Your task to perform on an android device: turn on javascript in the chrome app Image 0: 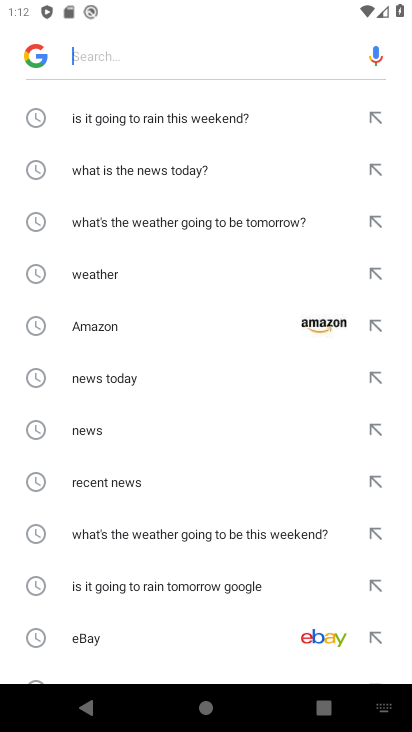
Step 0: press home button
Your task to perform on an android device: turn on javascript in the chrome app Image 1: 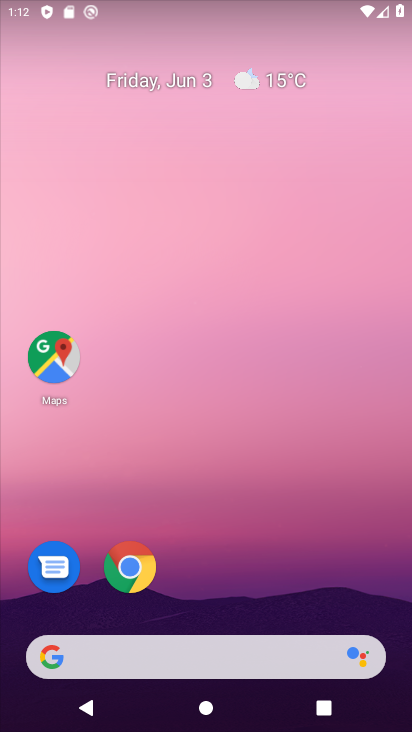
Step 1: click (124, 562)
Your task to perform on an android device: turn on javascript in the chrome app Image 2: 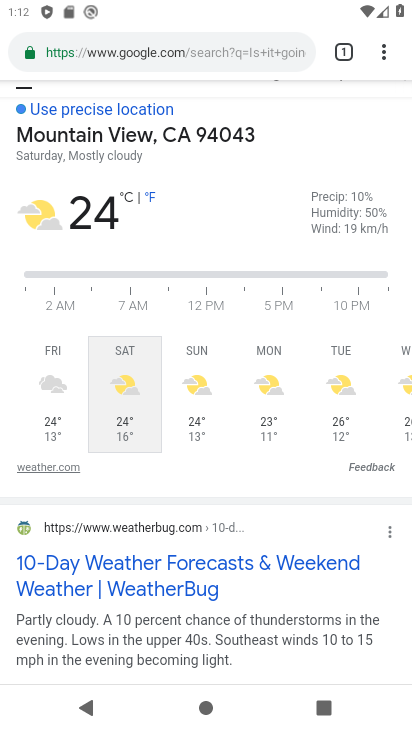
Step 2: drag from (376, 48) to (188, 579)
Your task to perform on an android device: turn on javascript in the chrome app Image 3: 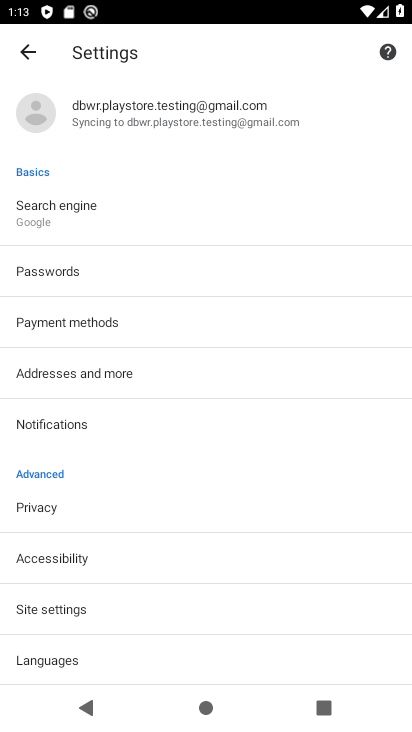
Step 3: click (43, 609)
Your task to perform on an android device: turn on javascript in the chrome app Image 4: 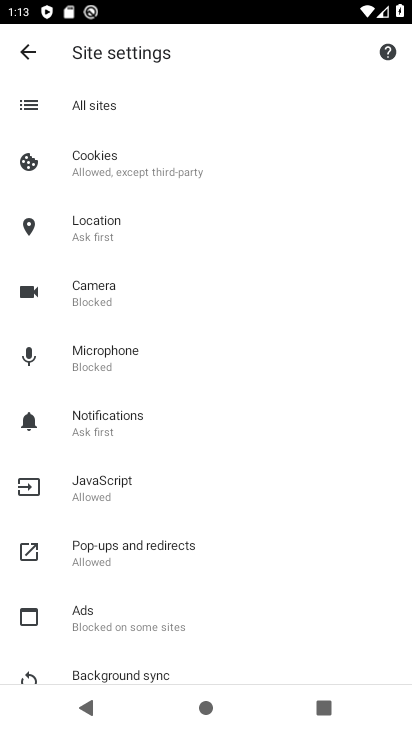
Step 4: click (86, 489)
Your task to perform on an android device: turn on javascript in the chrome app Image 5: 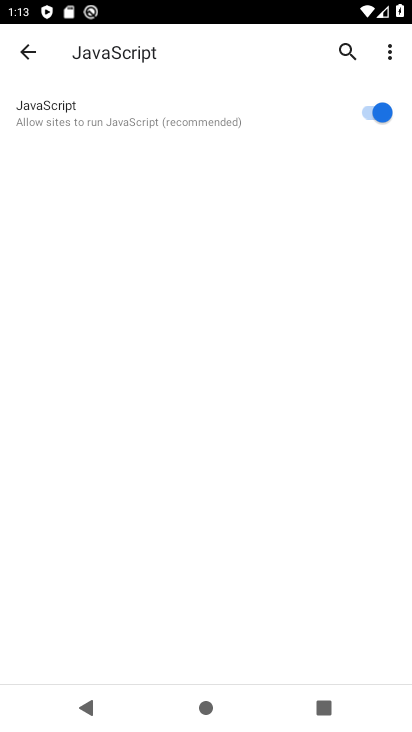
Step 5: task complete